Your task to perform on an android device: change notification settings in the gmail app Image 0: 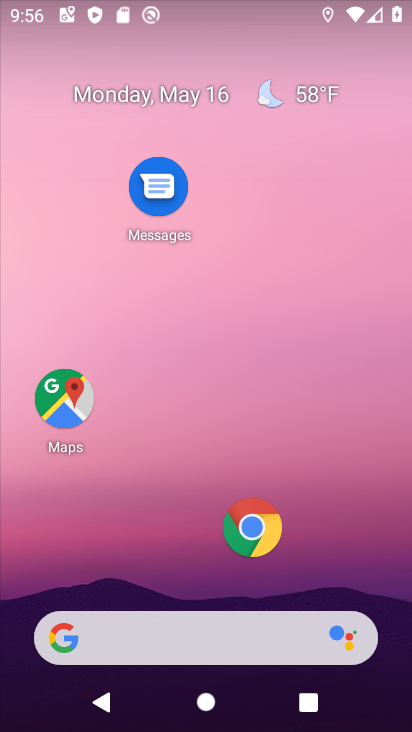
Step 0: drag from (165, 556) to (168, 106)
Your task to perform on an android device: change notification settings in the gmail app Image 1: 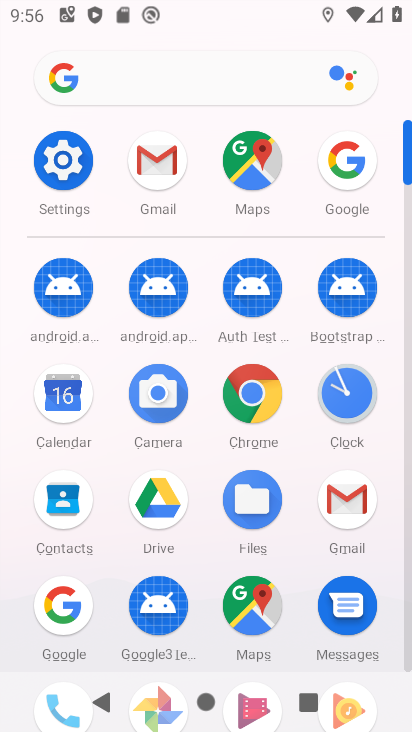
Step 1: click (161, 157)
Your task to perform on an android device: change notification settings in the gmail app Image 2: 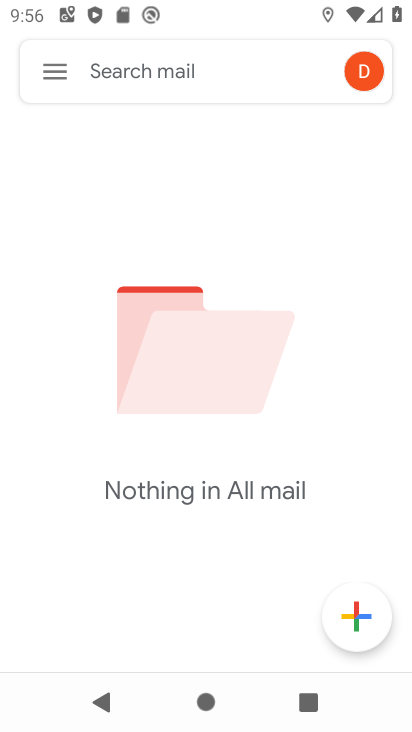
Step 2: click (49, 68)
Your task to perform on an android device: change notification settings in the gmail app Image 3: 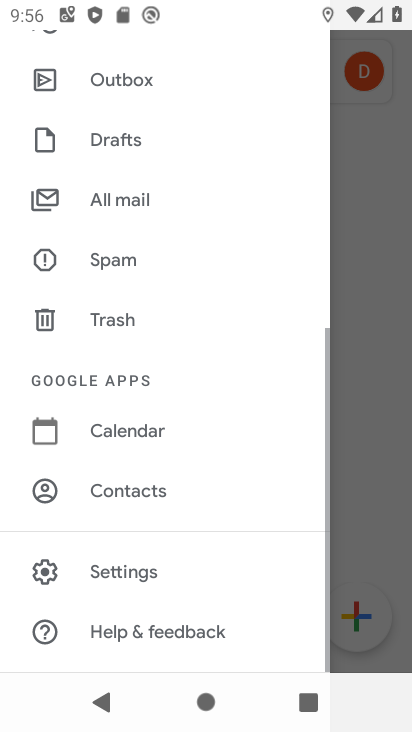
Step 3: click (150, 568)
Your task to perform on an android device: change notification settings in the gmail app Image 4: 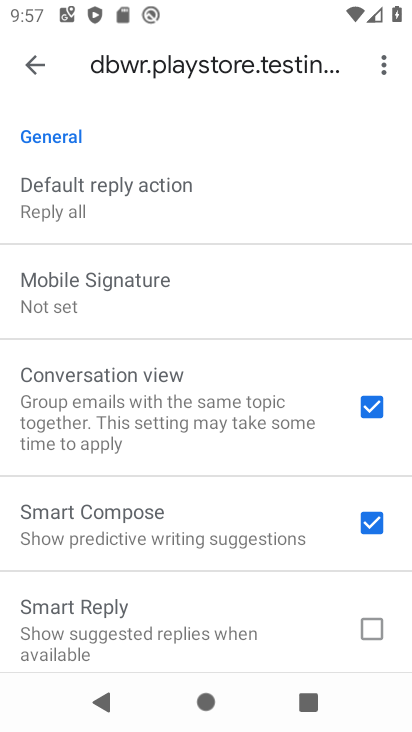
Step 4: drag from (184, 613) to (206, 161)
Your task to perform on an android device: change notification settings in the gmail app Image 5: 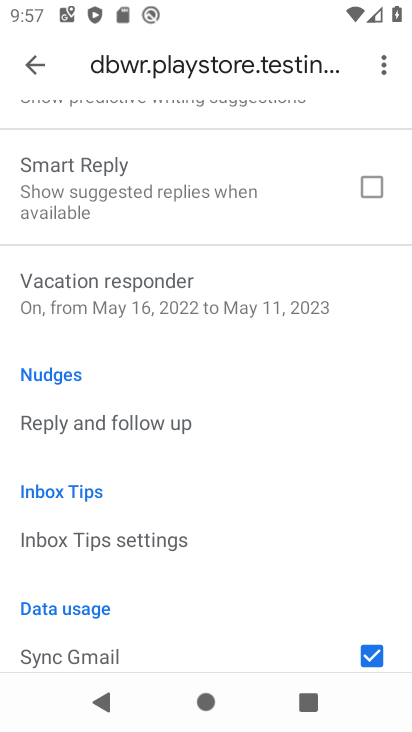
Step 5: drag from (134, 219) to (214, 707)
Your task to perform on an android device: change notification settings in the gmail app Image 6: 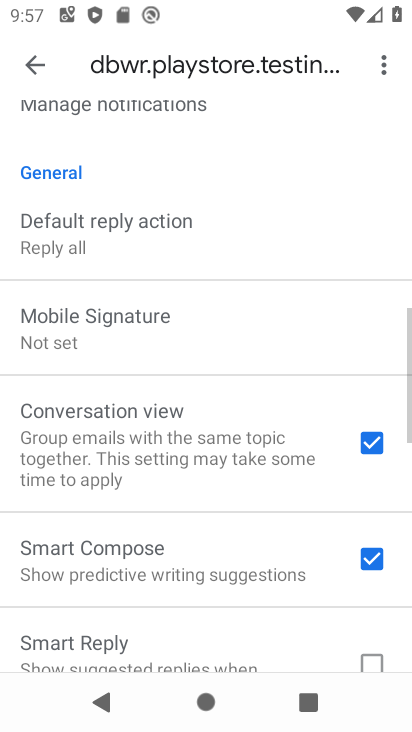
Step 6: drag from (111, 291) to (162, 668)
Your task to perform on an android device: change notification settings in the gmail app Image 7: 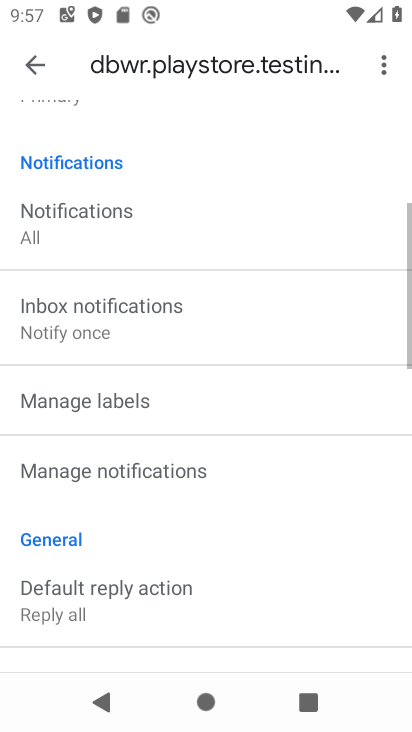
Step 7: click (68, 228)
Your task to perform on an android device: change notification settings in the gmail app Image 8: 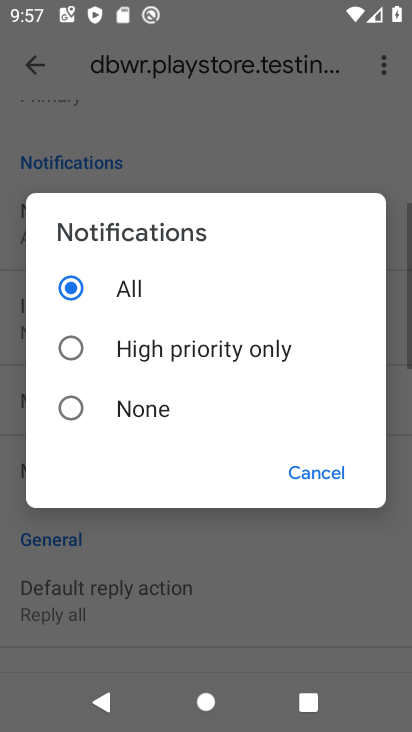
Step 8: click (68, 410)
Your task to perform on an android device: change notification settings in the gmail app Image 9: 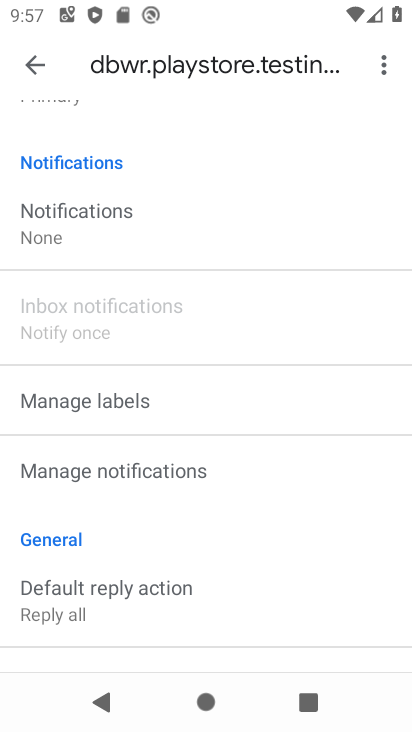
Step 9: task complete